Your task to perform on an android device: Open the phone app and click the voicemail tab. Image 0: 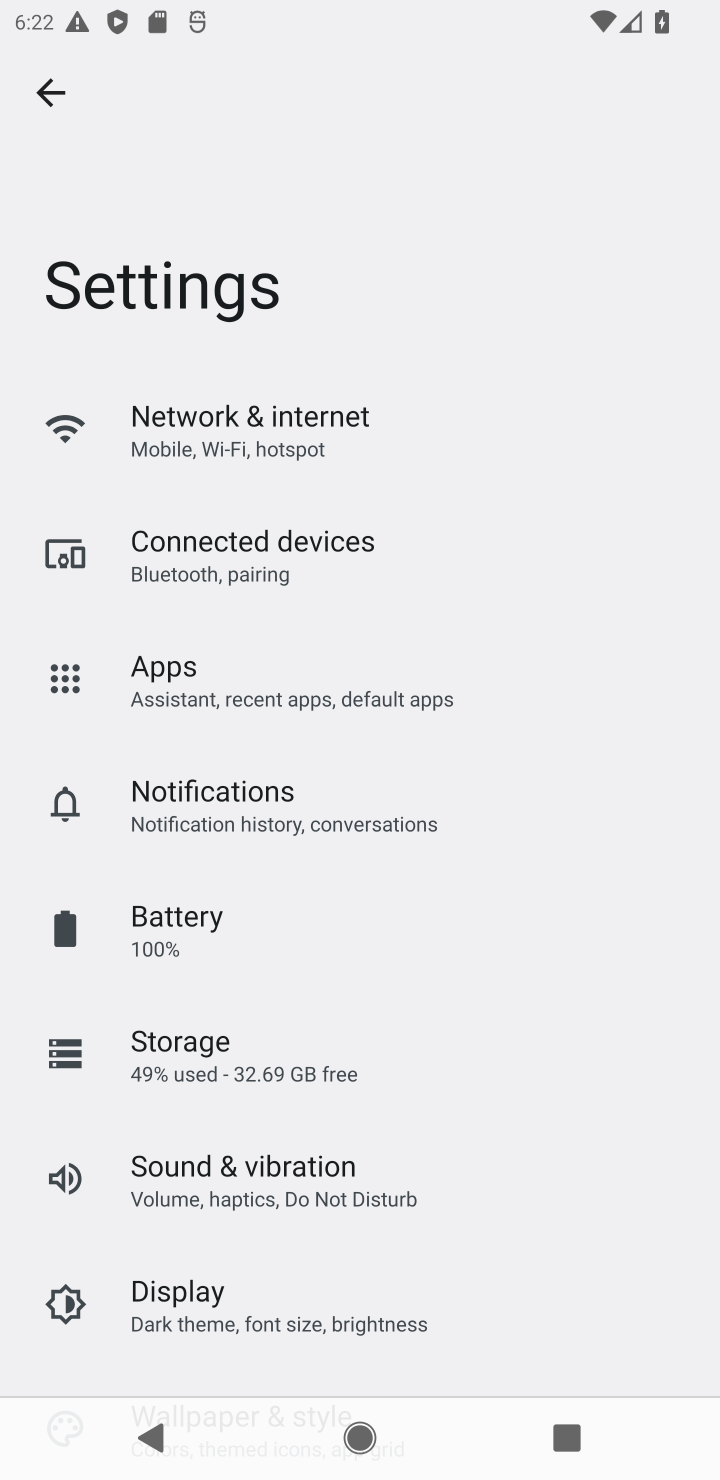
Step 0: press home button
Your task to perform on an android device: Open the phone app and click the voicemail tab. Image 1: 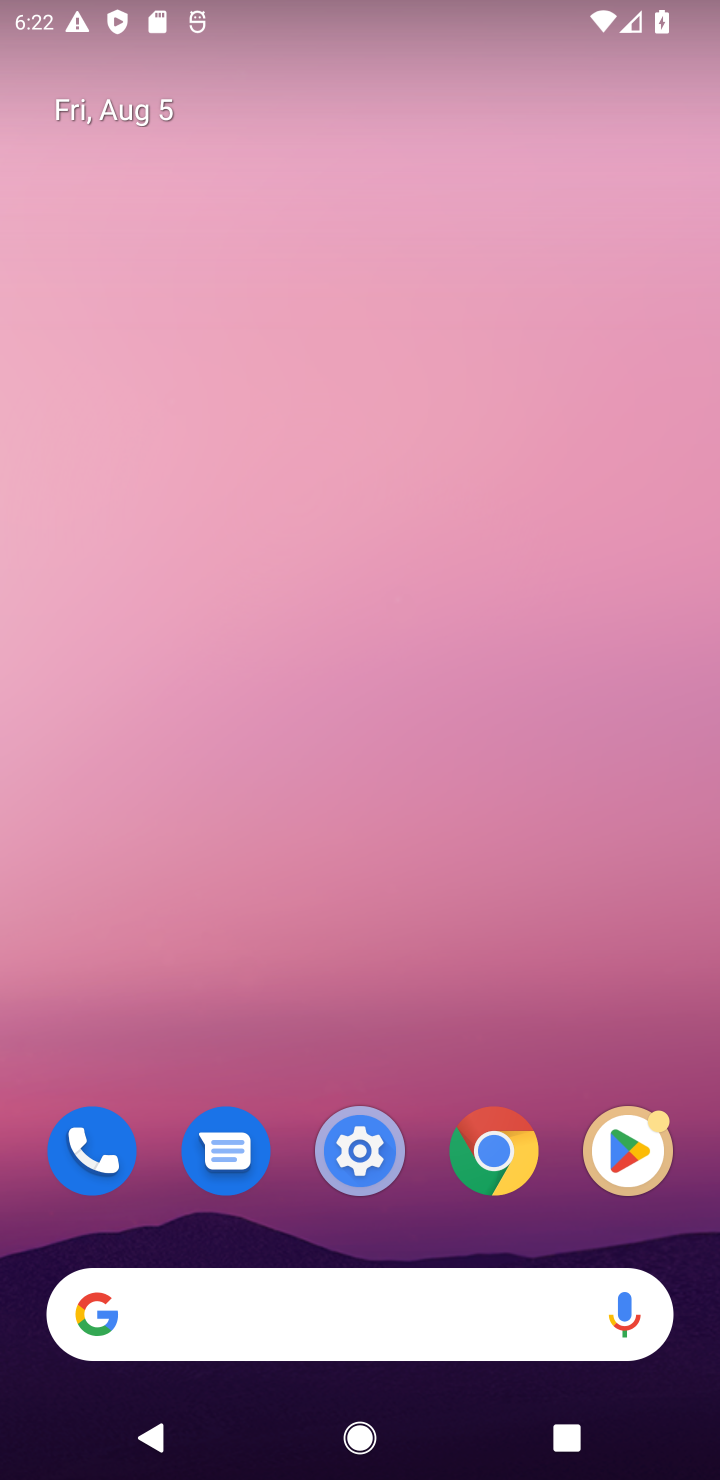
Step 1: drag from (365, 1260) to (699, 76)
Your task to perform on an android device: Open the phone app and click the voicemail tab. Image 2: 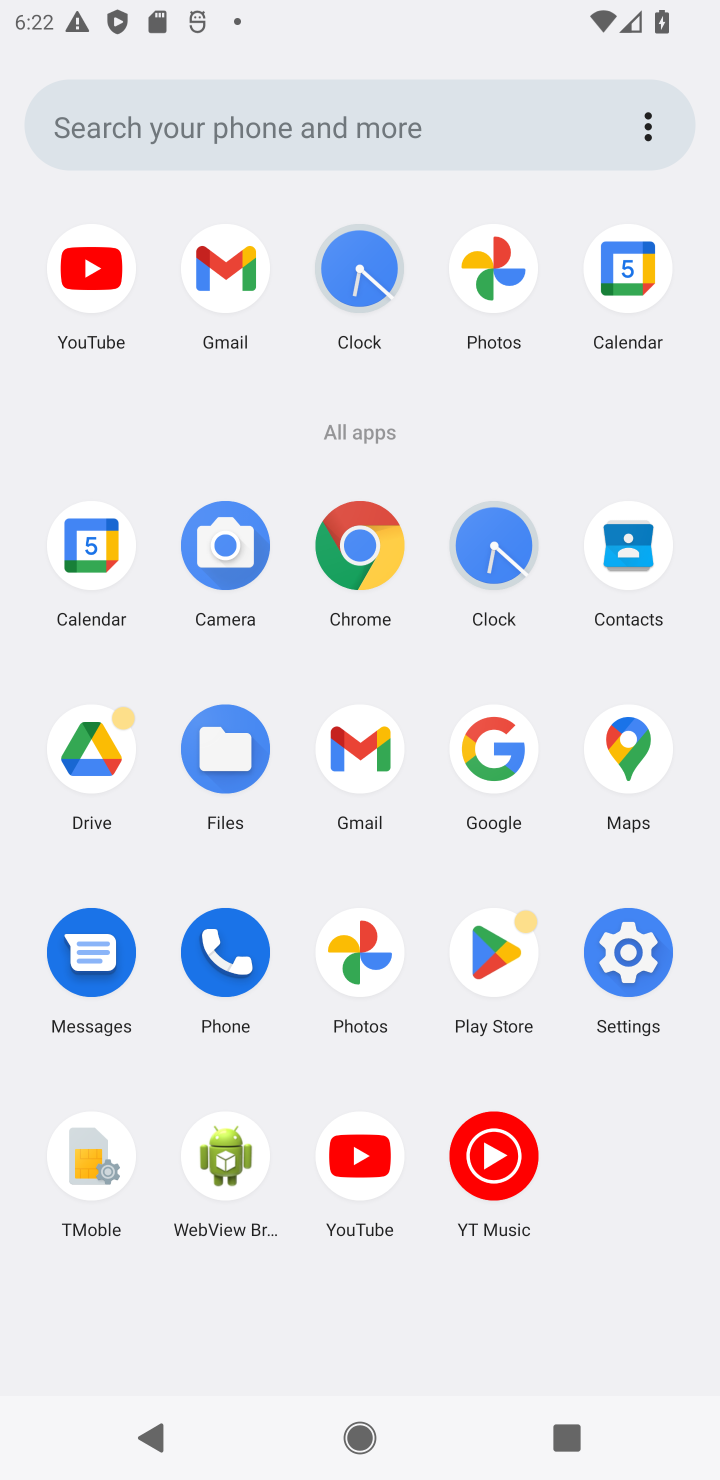
Step 2: click (232, 972)
Your task to perform on an android device: Open the phone app and click the voicemail tab. Image 3: 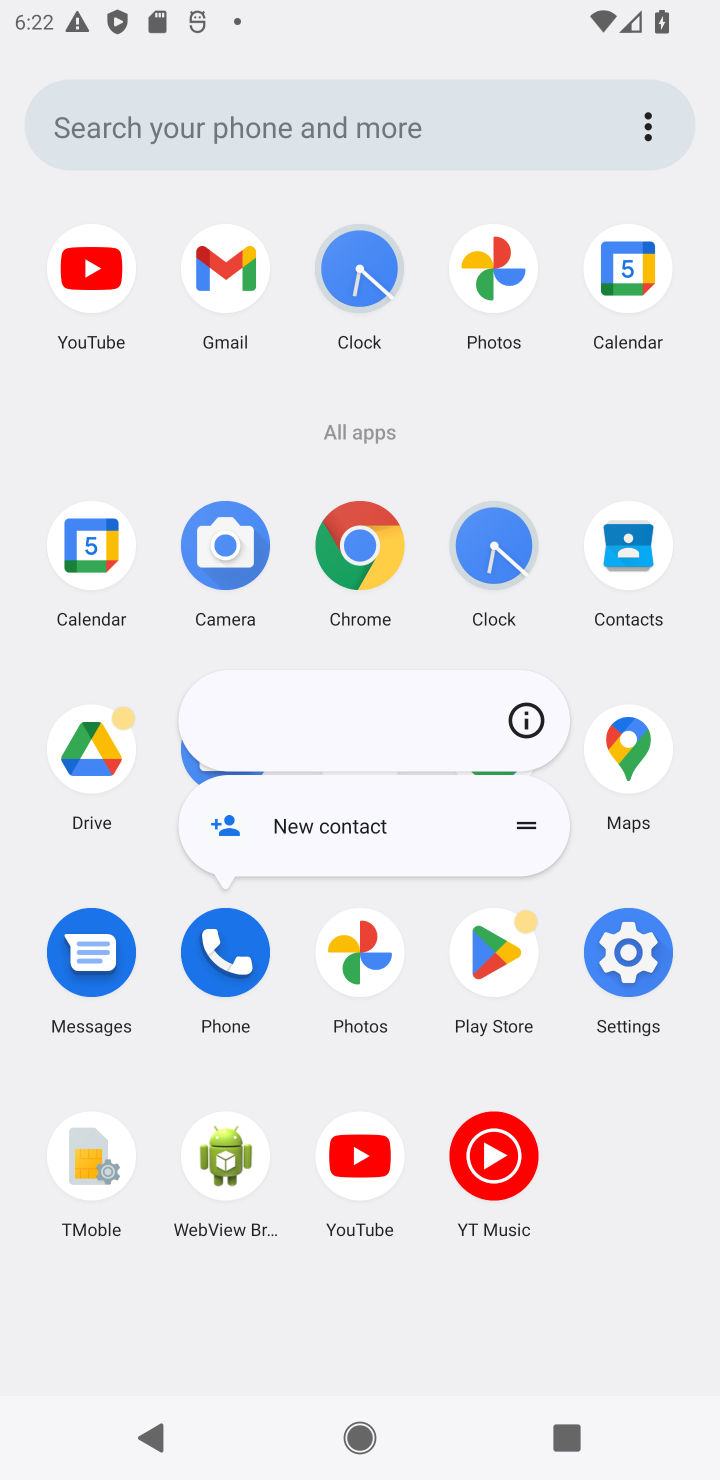
Step 3: click (265, 967)
Your task to perform on an android device: Open the phone app and click the voicemail tab. Image 4: 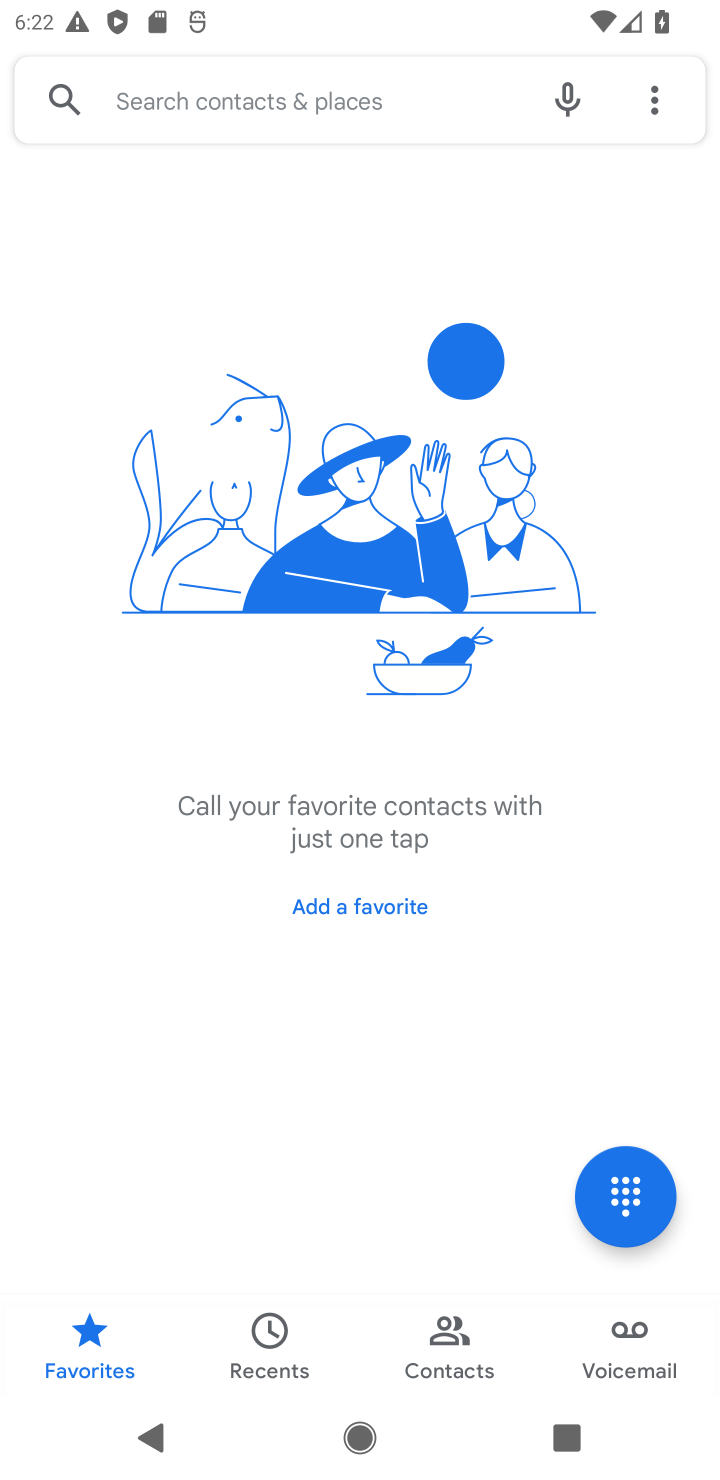
Step 4: click (619, 1314)
Your task to perform on an android device: Open the phone app and click the voicemail tab. Image 5: 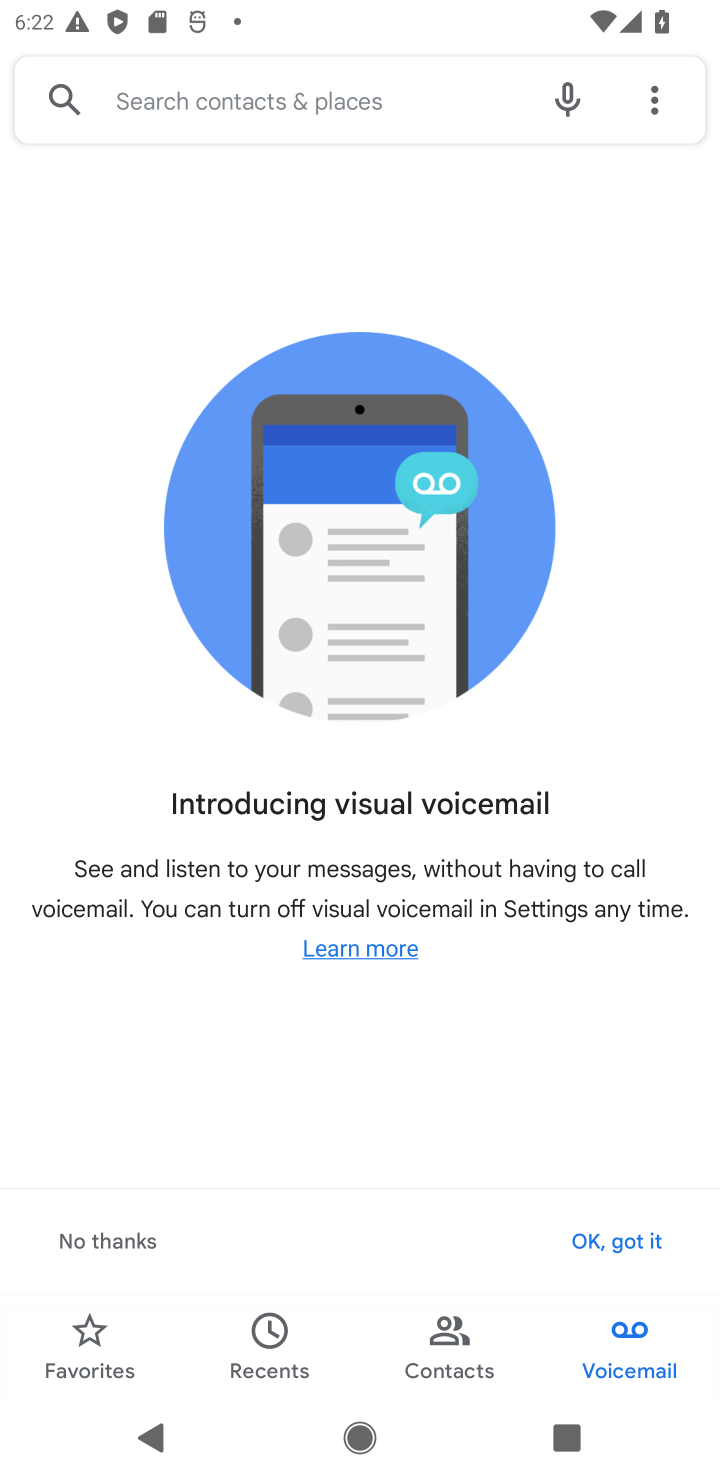
Step 5: task complete